Your task to perform on an android device: Open location settings Image 0: 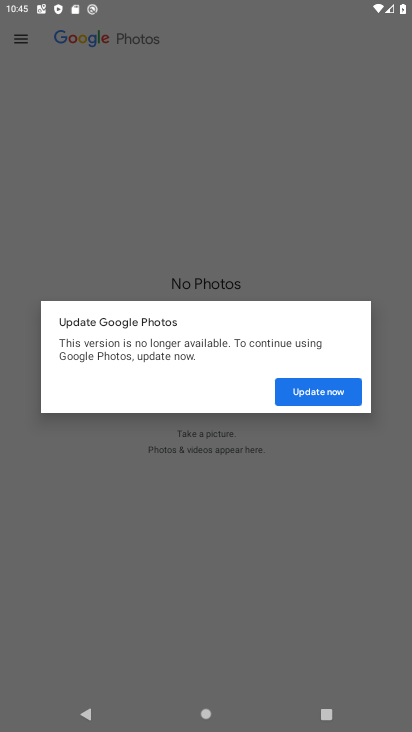
Step 0: press home button
Your task to perform on an android device: Open location settings Image 1: 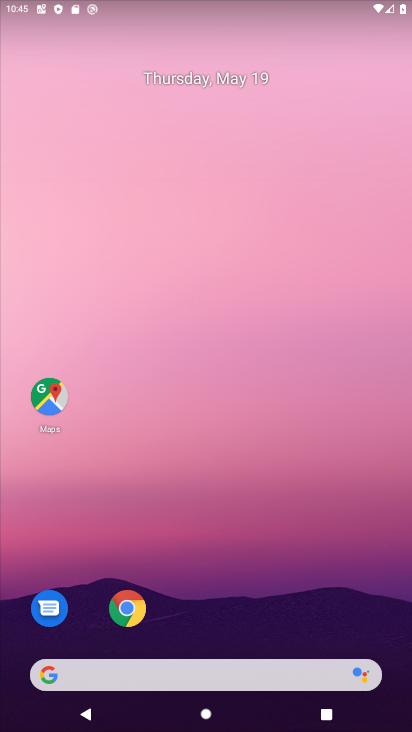
Step 1: drag from (390, 680) to (363, 211)
Your task to perform on an android device: Open location settings Image 2: 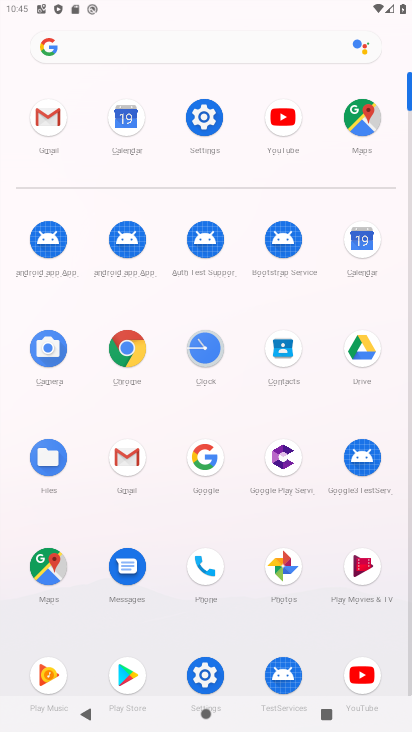
Step 2: click (201, 126)
Your task to perform on an android device: Open location settings Image 3: 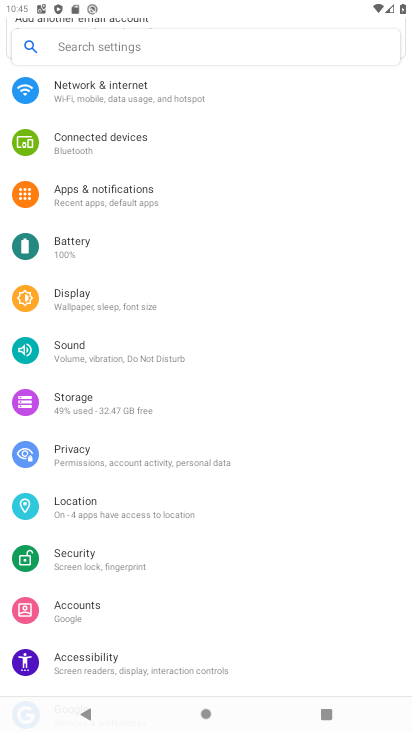
Step 3: click (58, 501)
Your task to perform on an android device: Open location settings Image 4: 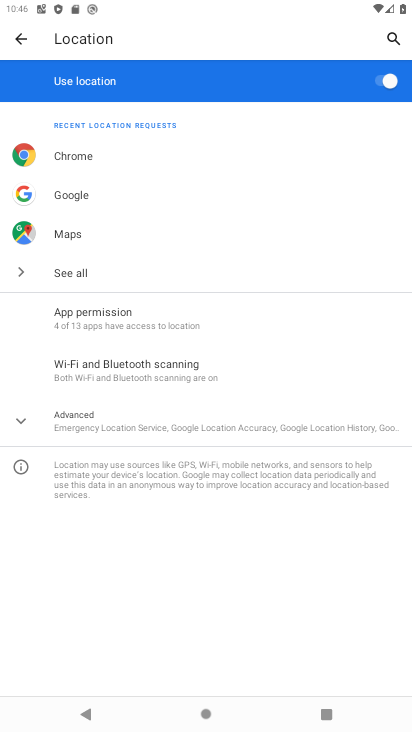
Step 4: task complete